Your task to perform on an android device: Show me the alarms in the clock app Image 0: 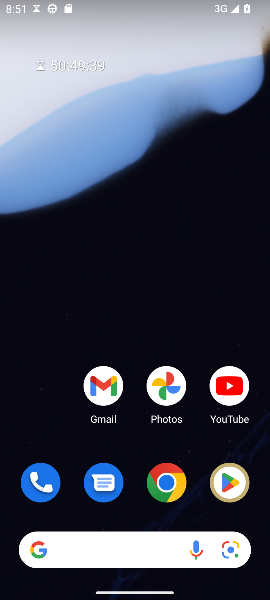
Step 0: drag from (123, 507) to (1, 55)
Your task to perform on an android device: Show me the alarms in the clock app Image 1: 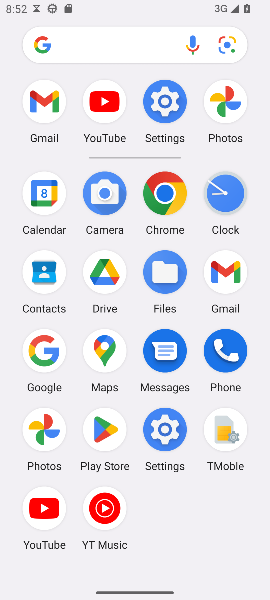
Step 1: click (241, 195)
Your task to perform on an android device: Show me the alarms in the clock app Image 2: 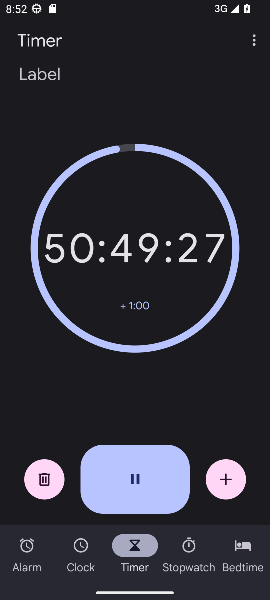
Step 2: click (25, 556)
Your task to perform on an android device: Show me the alarms in the clock app Image 3: 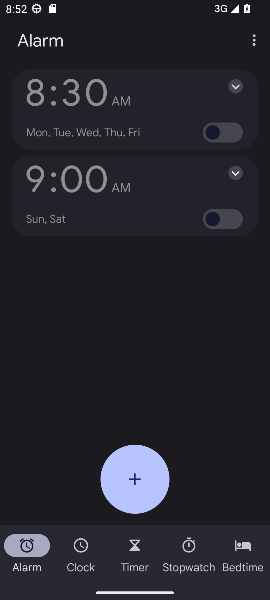
Step 3: click (53, 104)
Your task to perform on an android device: Show me the alarms in the clock app Image 4: 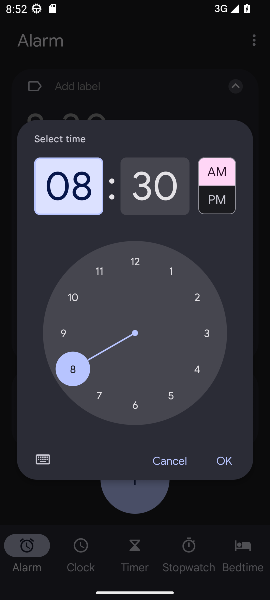
Step 4: task complete